Your task to perform on an android device: uninstall "Move to iOS" Image 0: 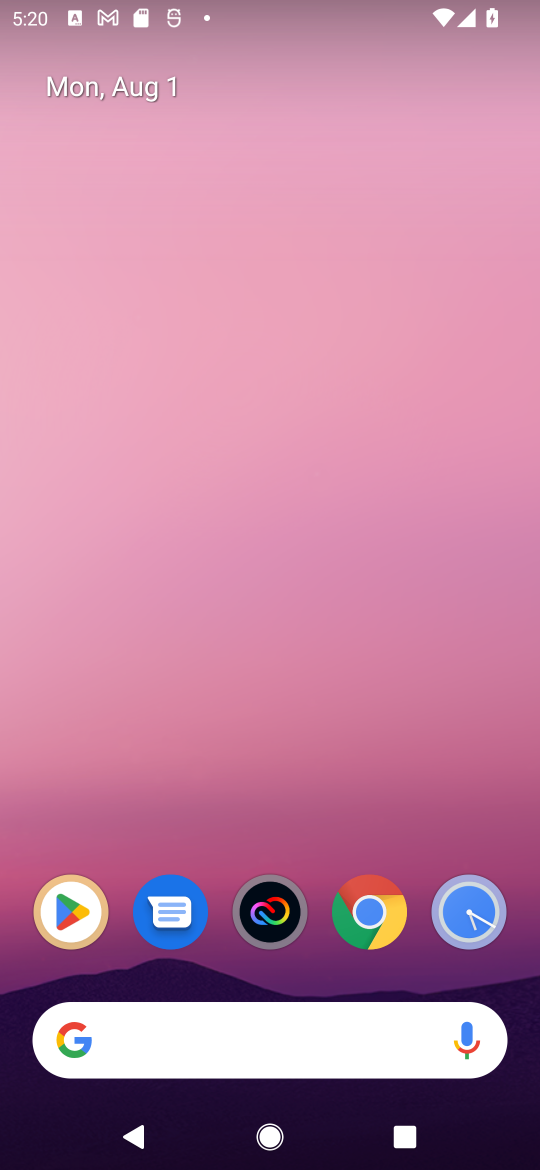
Step 0: click (53, 917)
Your task to perform on an android device: uninstall "Move to iOS" Image 1: 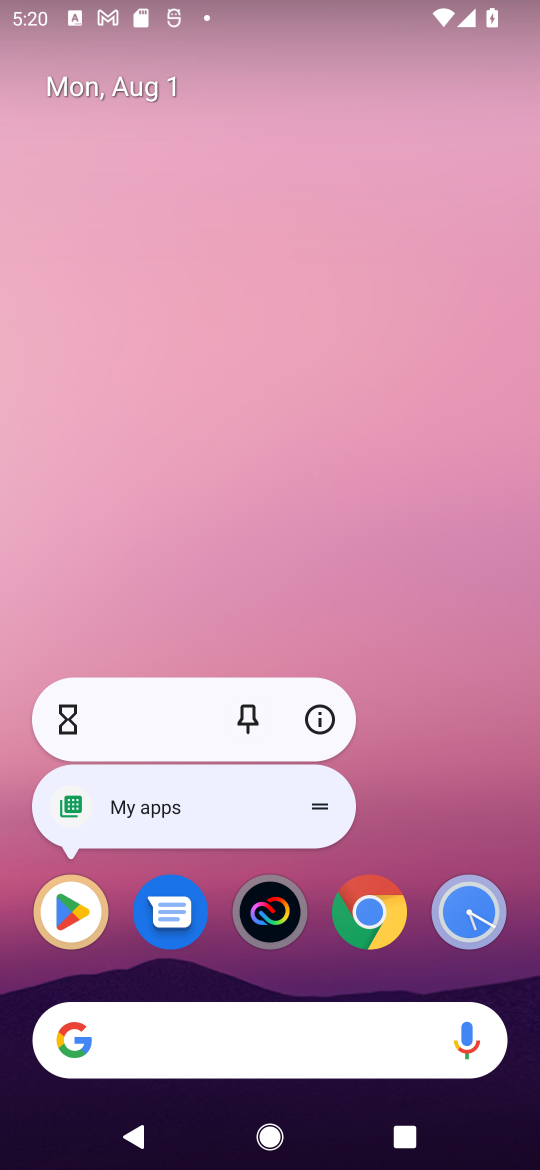
Step 1: click (60, 928)
Your task to perform on an android device: uninstall "Move to iOS" Image 2: 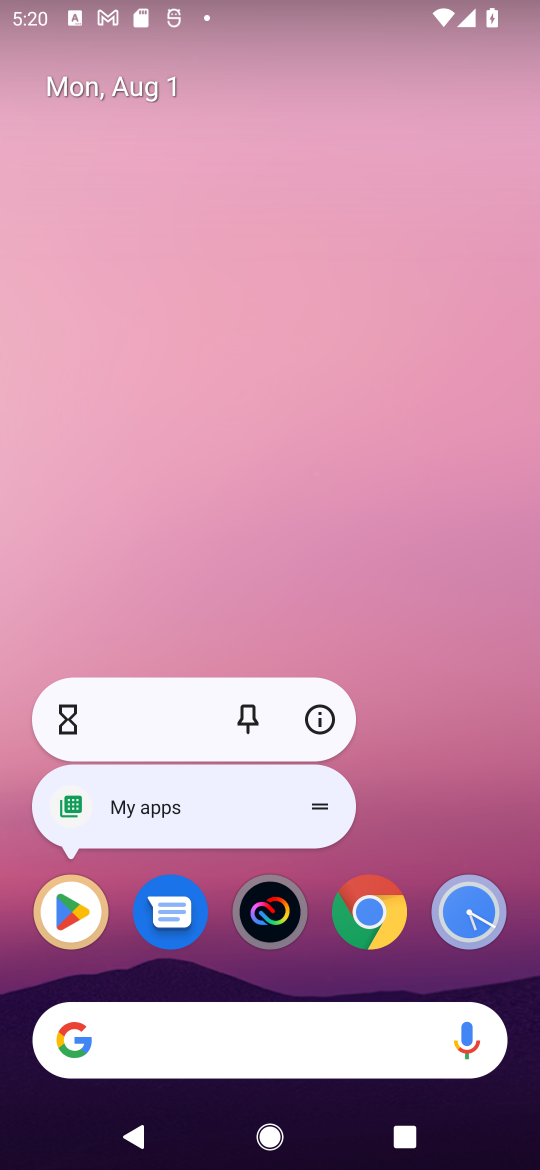
Step 2: click (60, 928)
Your task to perform on an android device: uninstall "Move to iOS" Image 3: 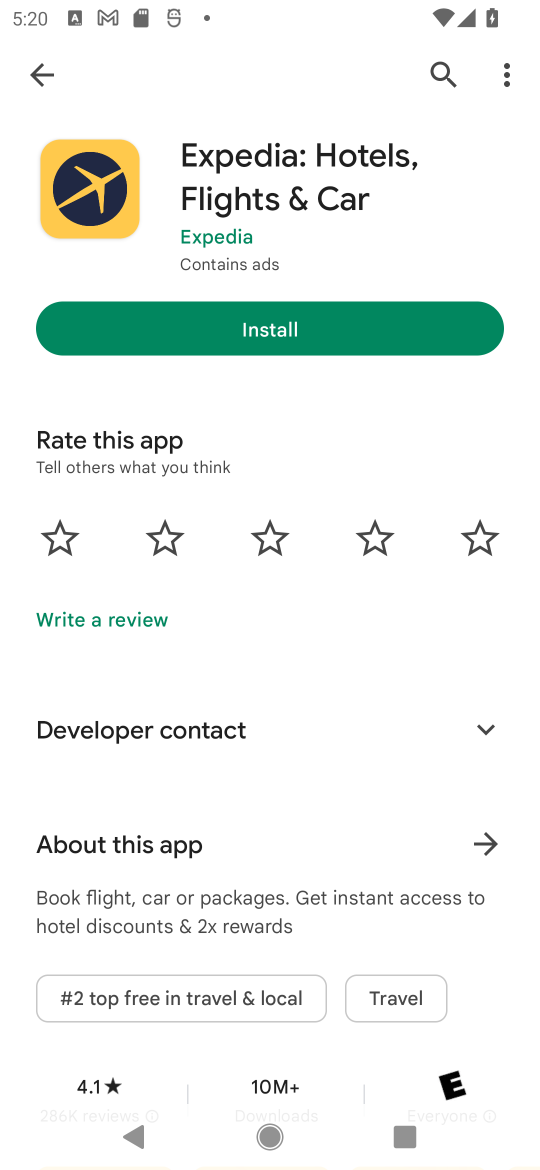
Step 3: click (445, 69)
Your task to perform on an android device: uninstall "Move to iOS" Image 4: 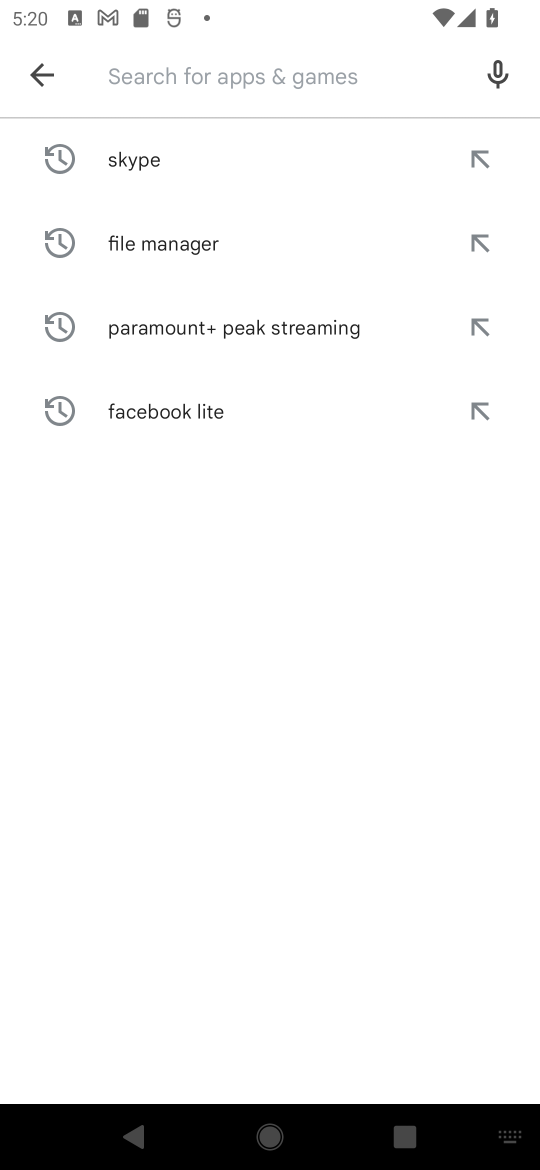
Step 4: type "Move to iOS"
Your task to perform on an android device: uninstall "Move to iOS" Image 5: 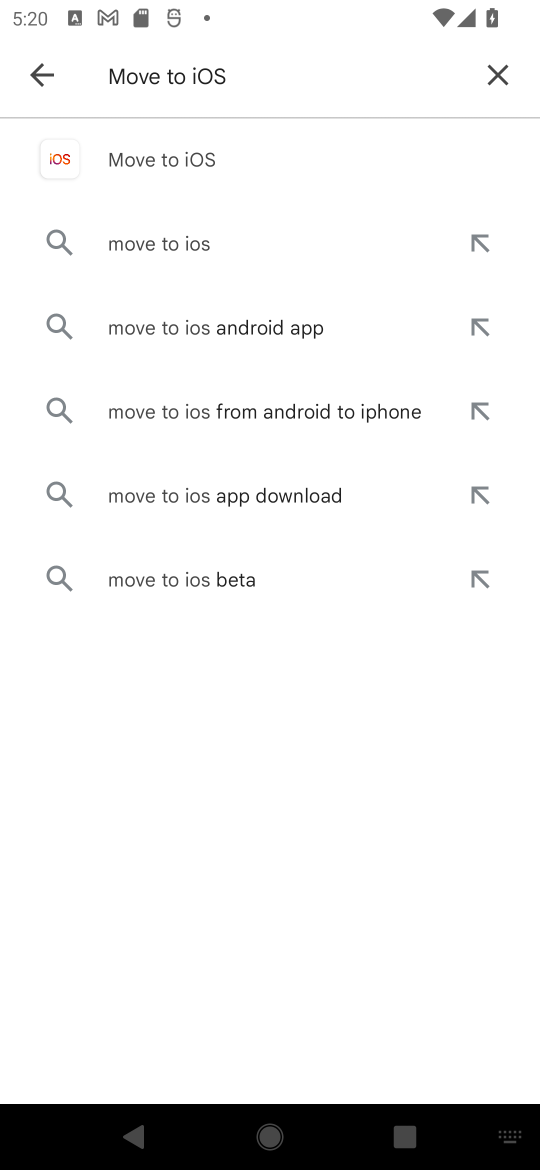
Step 5: click (162, 174)
Your task to perform on an android device: uninstall "Move to iOS" Image 6: 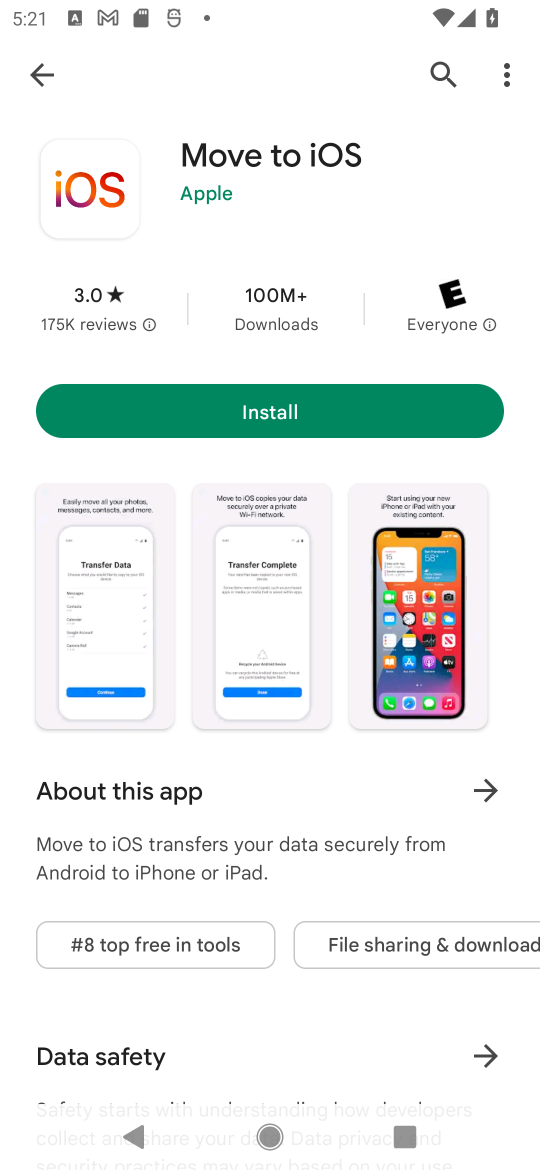
Step 6: task complete